Your task to perform on an android device: Open Yahoo.com Image 0: 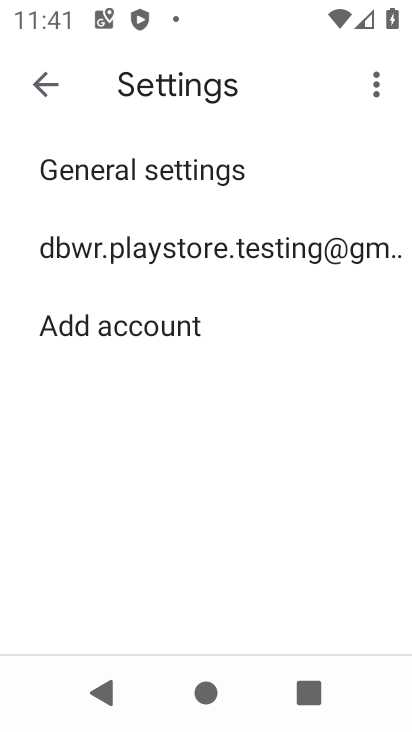
Step 0: press home button
Your task to perform on an android device: Open Yahoo.com Image 1: 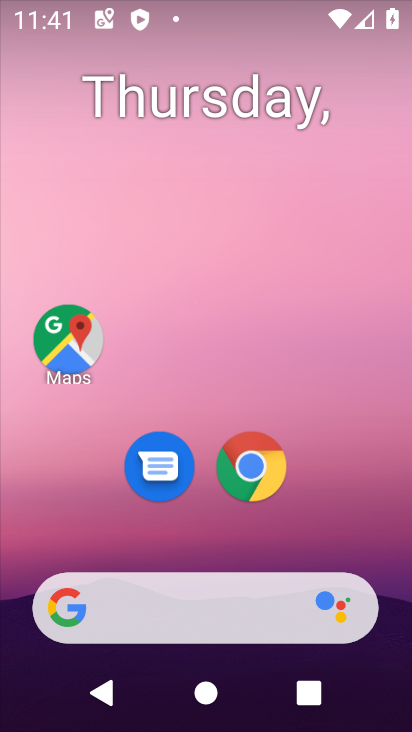
Step 1: click (257, 474)
Your task to perform on an android device: Open Yahoo.com Image 2: 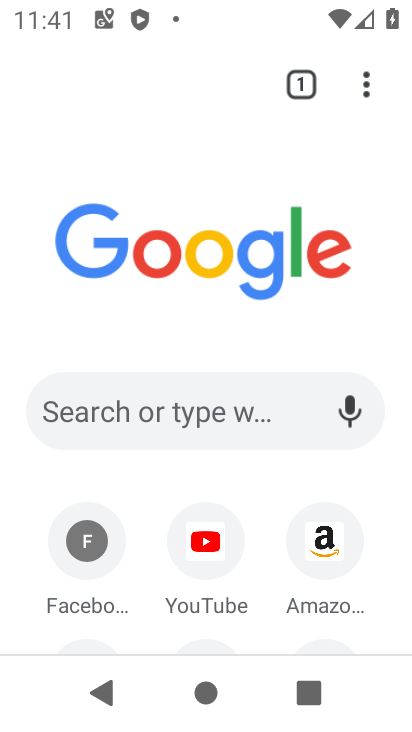
Step 2: drag from (284, 543) to (287, 174)
Your task to perform on an android device: Open Yahoo.com Image 3: 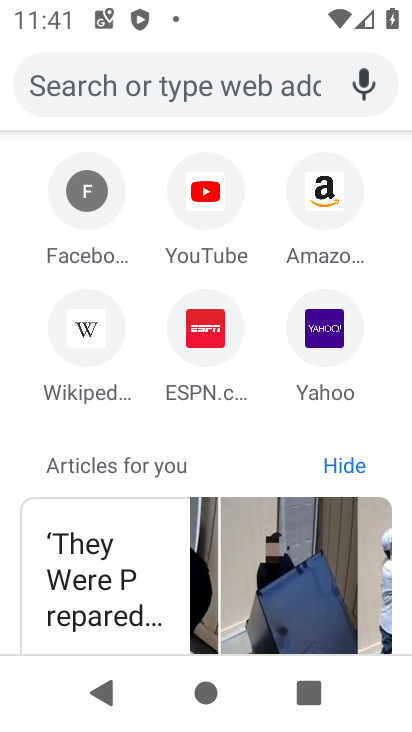
Step 3: click (326, 362)
Your task to perform on an android device: Open Yahoo.com Image 4: 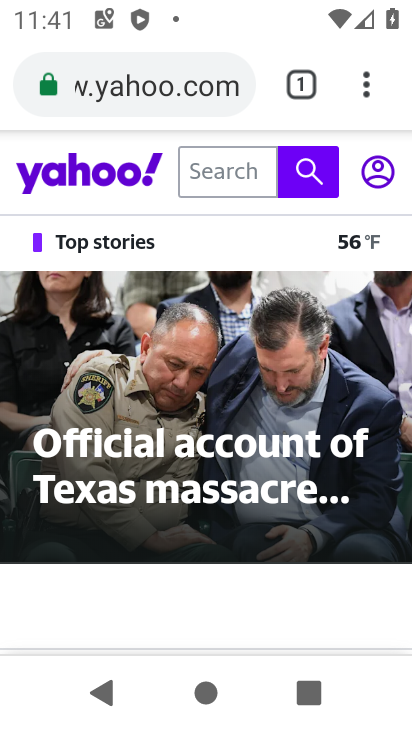
Step 4: task complete